Your task to perform on an android device: Open Chrome and go to settings Image 0: 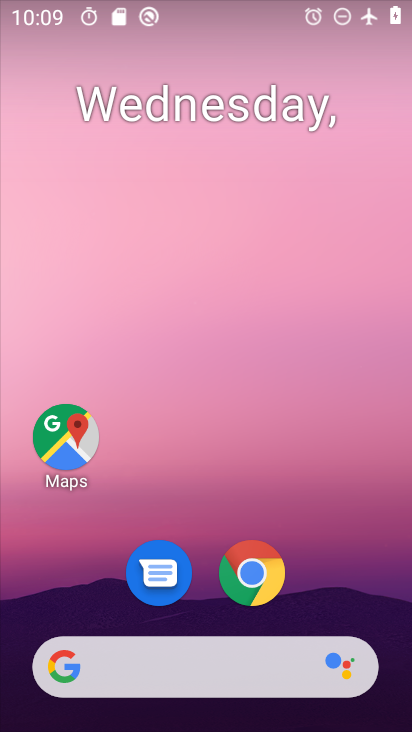
Step 0: click (269, 597)
Your task to perform on an android device: Open Chrome and go to settings Image 1: 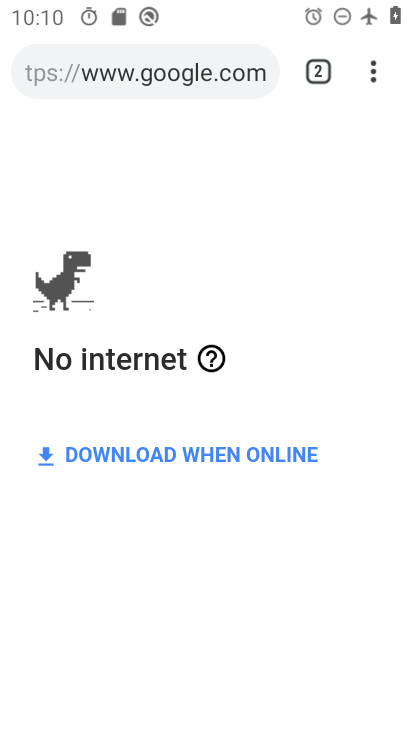
Step 1: click (375, 77)
Your task to perform on an android device: Open Chrome and go to settings Image 2: 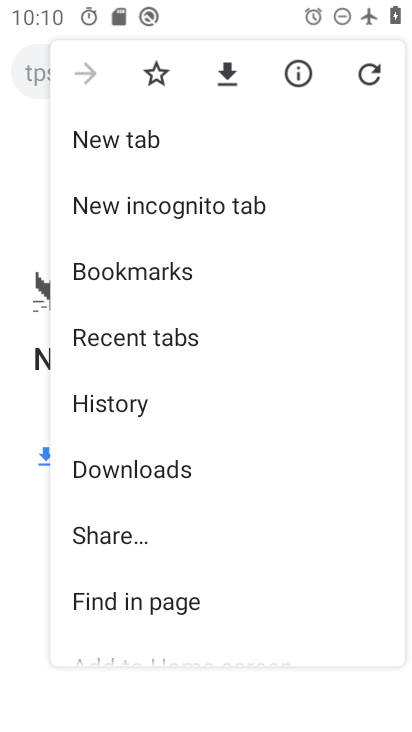
Step 2: drag from (232, 582) to (209, 324)
Your task to perform on an android device: Open Chrome and go to settings Image 3: 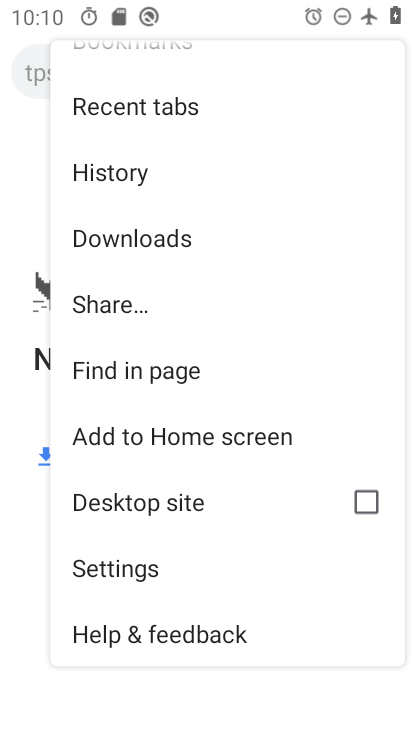
Step 3: click (150, 574)
Your task to perform on an android device: Open Chrome and go to settings Image 4: 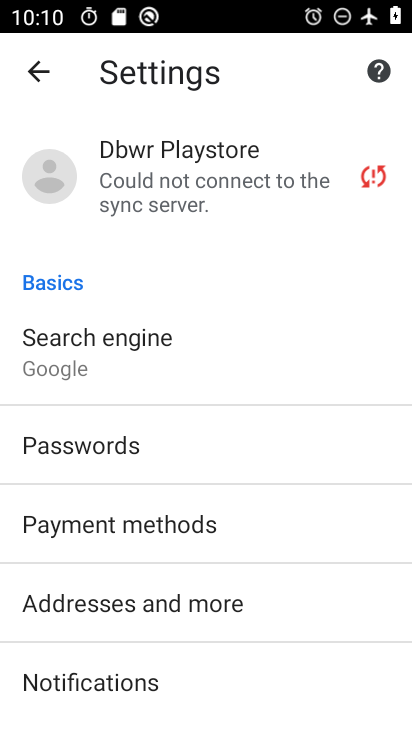
Step 4: task complete